Your task to perform on an android device: When is my next appointment? Image 0: 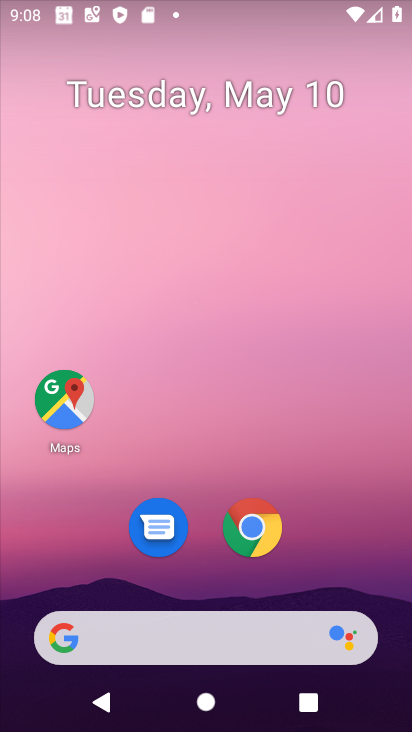
Step 0: drag from (333, 558) to (284, 211)
Your task to perform on an android device: When is my next appointment? Image 1: 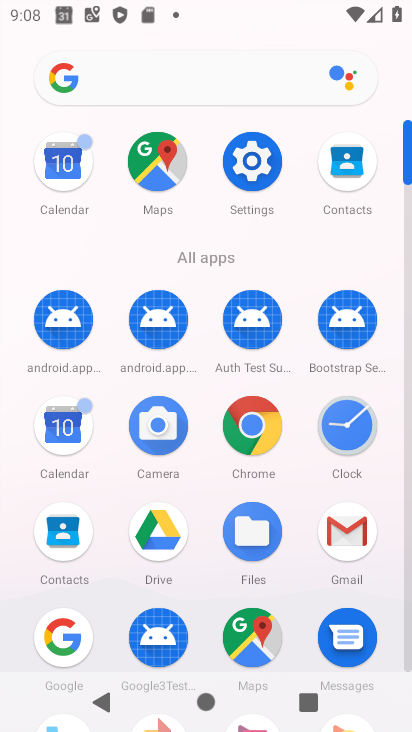
Step 1: click (68, 475)
Your task to perform on an android device: When is my next appointment? Image 2: 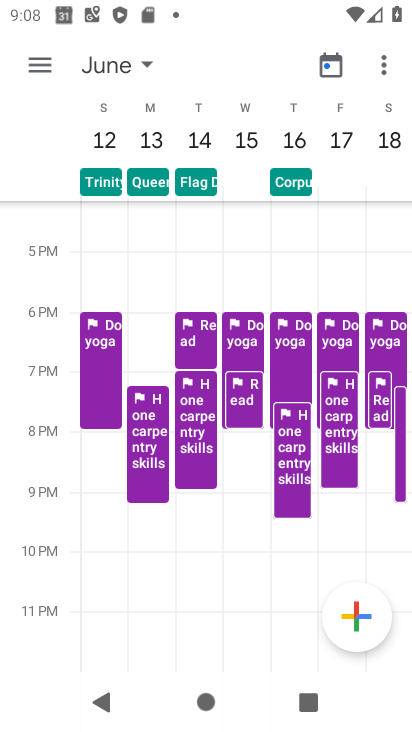
Step 2: click (41, 72)
Your task to perform on an android device: When is my next appointment? Image 3: 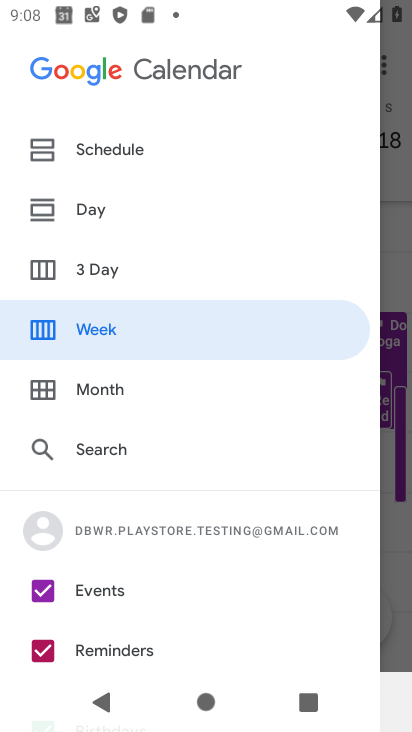
Step 3: click (102, 215)
Your task to perform on an android device: When is my next appointment? Image 4: 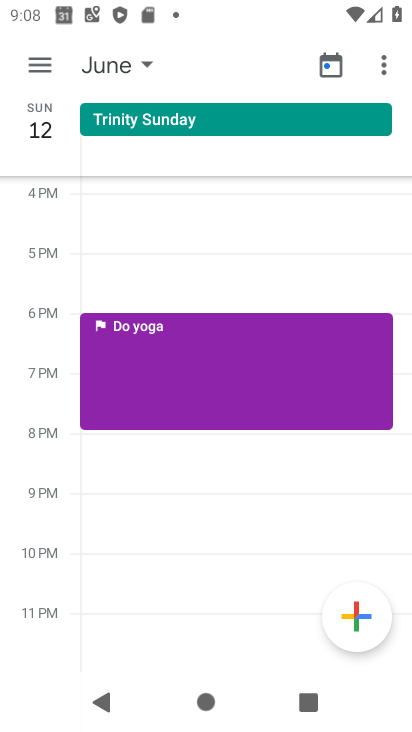
Step 4: click (49, 71)
Your task to perform on an android device: When is my next appointment? Image 5: 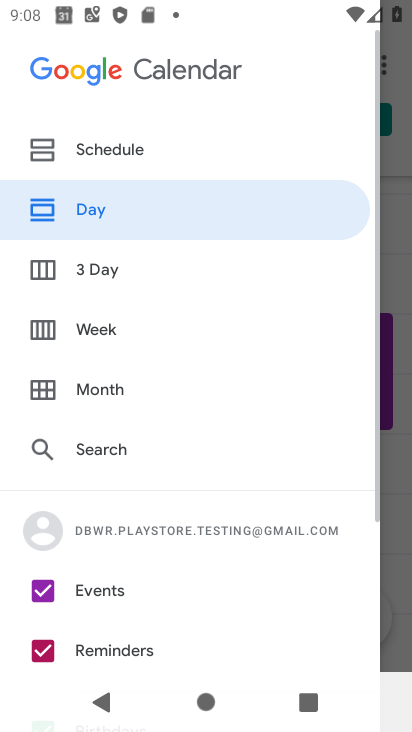
Step 5: click (118, 165)
Your task to perform on an android device: When is my next appointment? Image 6: 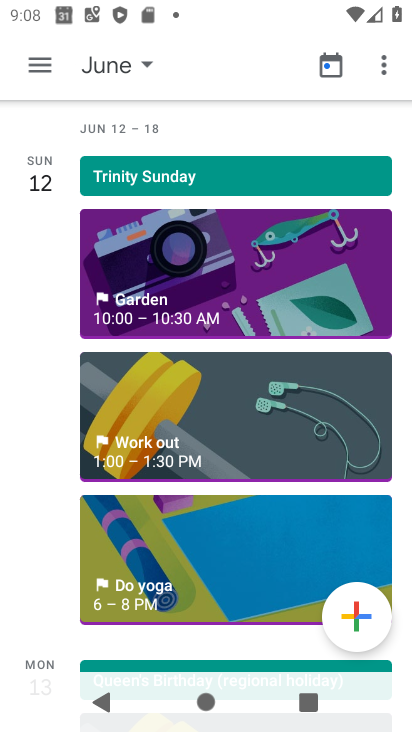
Step 6: drag from (225, 546) to (266, 269)
Your task to perform on an android device: When is my next appointment? Image 7: 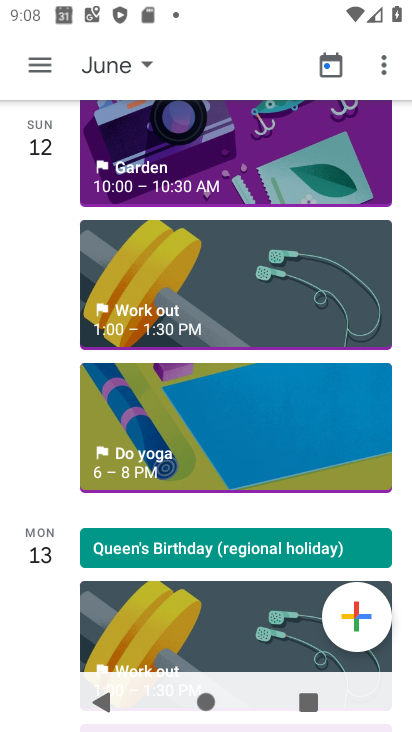
Step 7: drag from (228, 541) to (226, 248)
Your task to perform on an android device: When is my next appointment? Image 8: 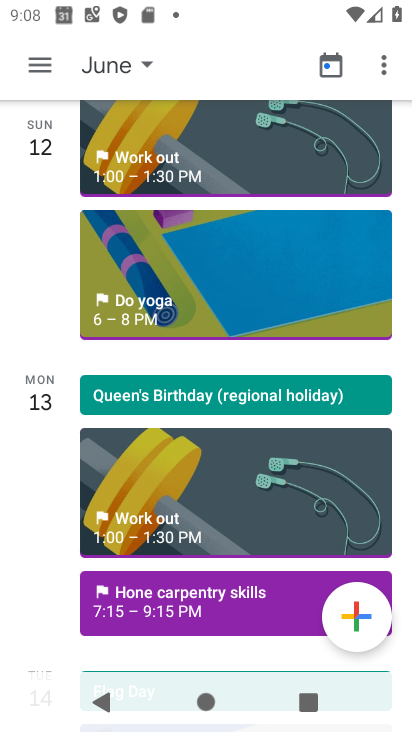
Step 8: drag from (161, 523) to (204, 305)
Your task to perform on an android device: When is my next appointment? Image 9: 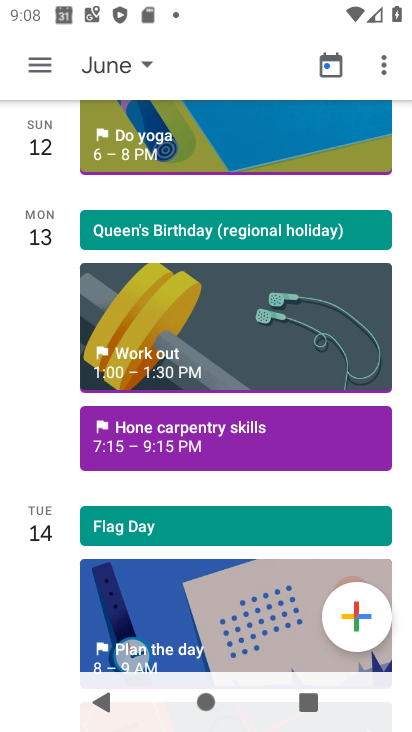
Step 9: drag from (189, 530) to (226, 289)
Your task to perform on an android device: When is my next appointment? Image 10: 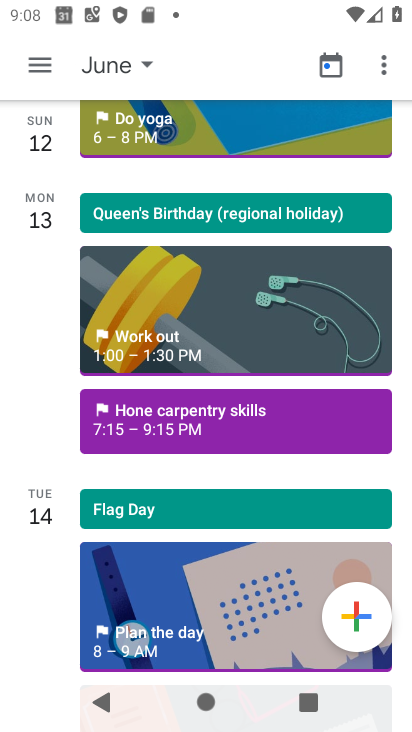
Step 10: drag from (208, 588) to (211, 273)
Your task to perform on an android device: When is my next appointment? Image 11: 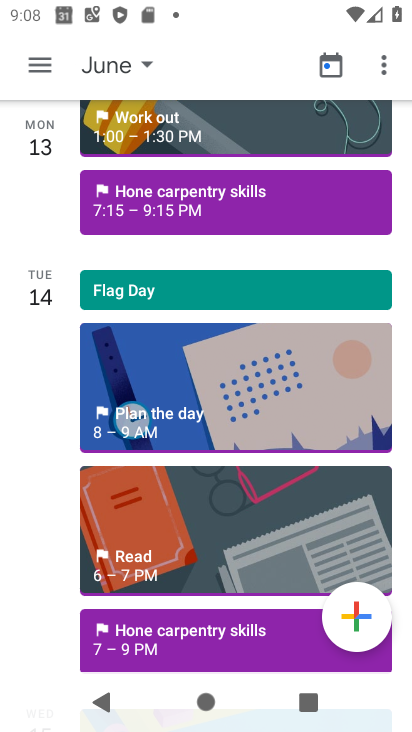
Step 11: drag from (174, 564) to (207, 260)
Your task to perform on an android device: When is my next appointment? Image 12: 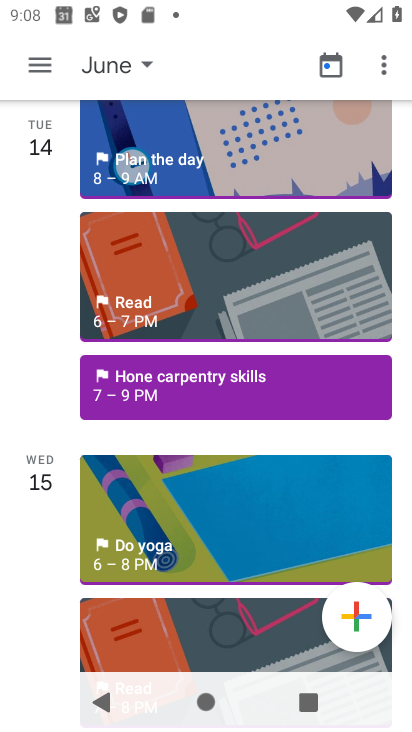
Step 12: drag from (196, 551) to (210, 274)
Your task to perform on an android device: When is my next appointment? Image 13: 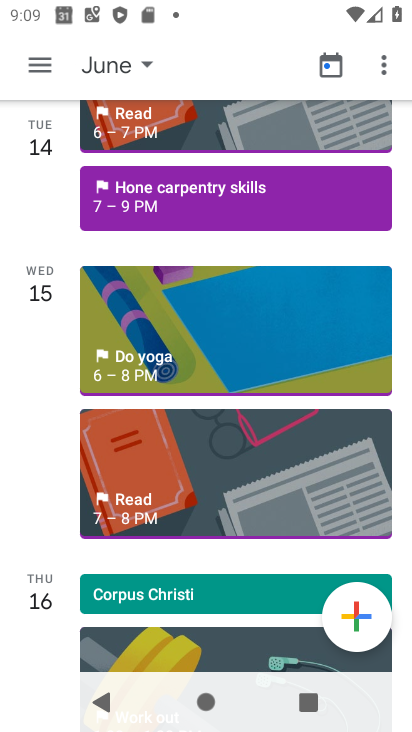
Step 13: drag from (203, 541) to (203, 287)
Your task to perform on an android device: When is my next appointment? Image 14: 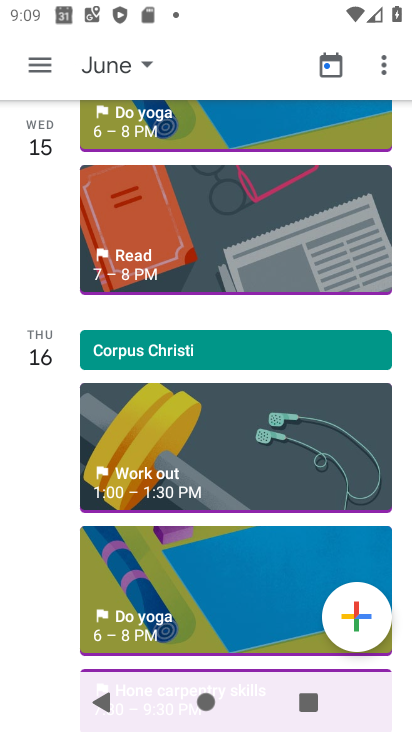
Step 14: drag from (178, 571) to (193, 315)
Your task to perform on an android device: When is my next appointment? Image 15: 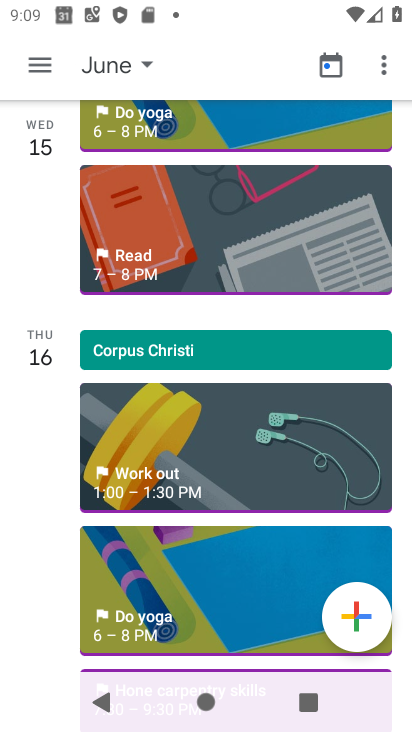
Step 15: drag from (141, 563) to (161, 256)
Your task to perform on an android device: When is my next appointment? Image 16: 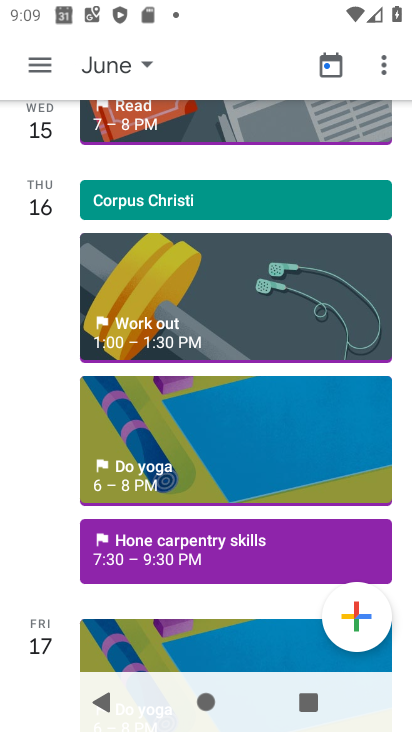
Step 16: drag from (83, 538) to (116, 310)
Your task to perform on an android device: When is my next appointment? Image 17: 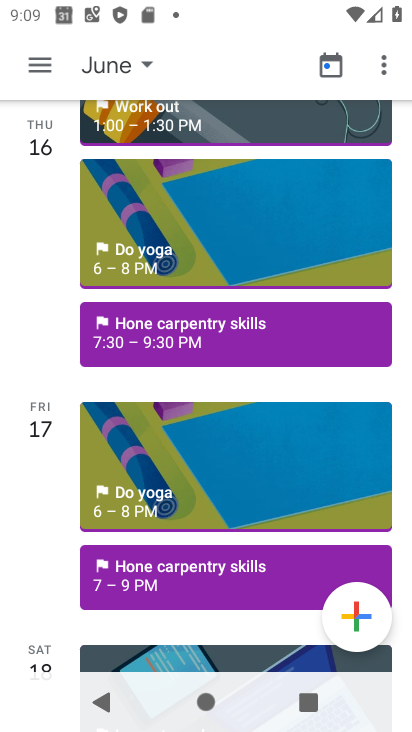
Step 17: drag from (150, 564) to (181, 292)
Your task to perform on an android device: When is my next appointment? Image 18: 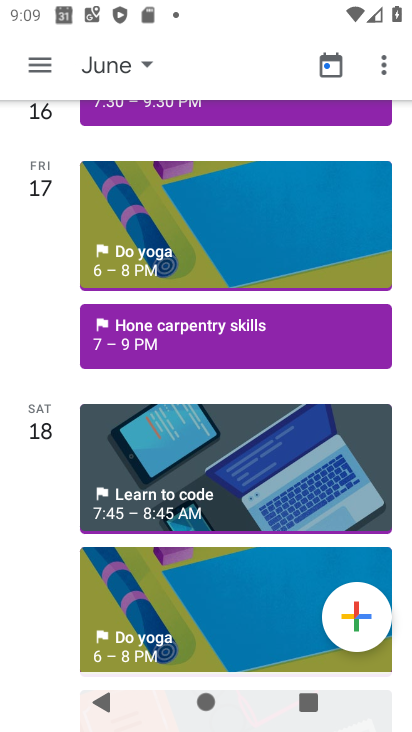
Step 18: drag from (163, 550) to (163, 202)
Your task to perform on an android device: When is my next appointment? Image 19: 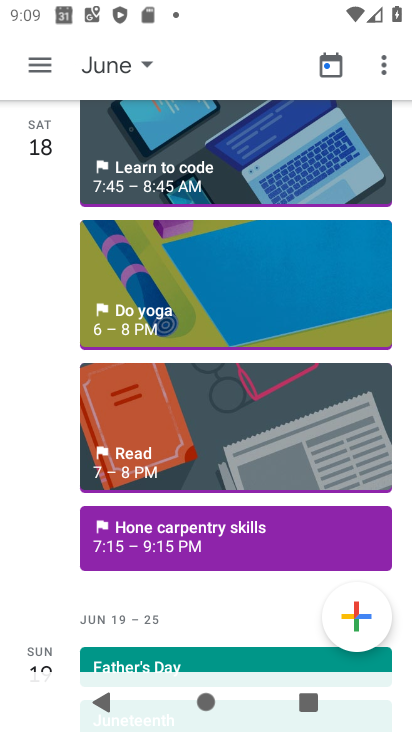
Step 19: drag from (97, 493) to (157, 200)
Your task to perform on an android device: When is my next appointment? Image 20: 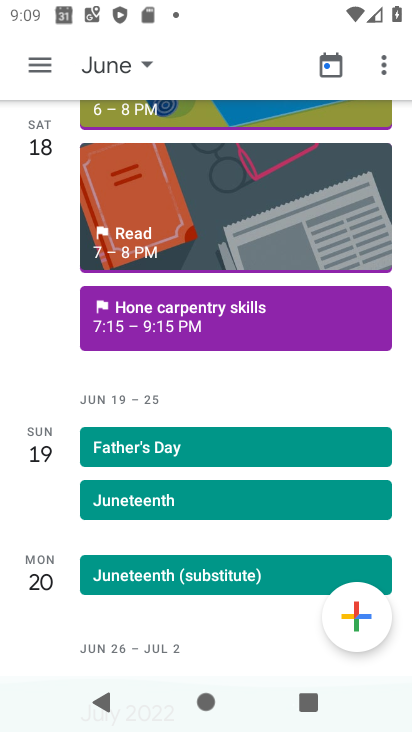
Step 20: drag from (142, 482) to (211, 202)
Your task to perform on an android device: When is my next appointment? Image 21: 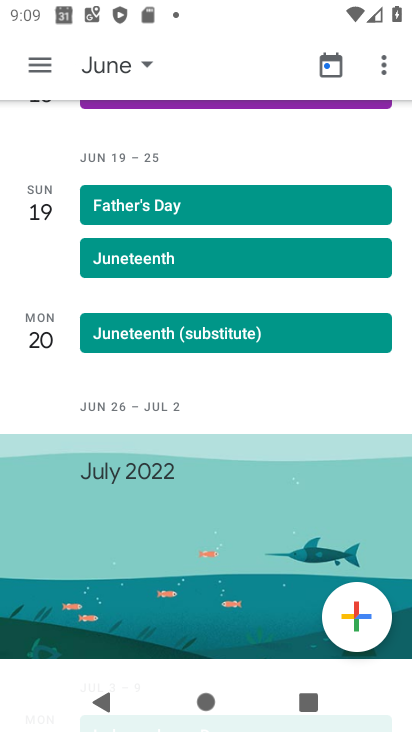
Step 21: drag from (190, 424) to (231, 152)
Your task to perform on an android device: When is my next appointment? Image 22: 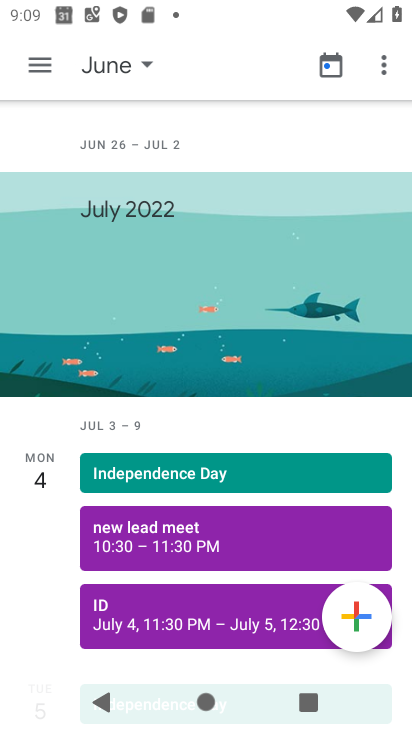
Step 22: drag from (164, 228) to (161, 491)
Your task to perform on an android device: When is my next appointment? Image 23: 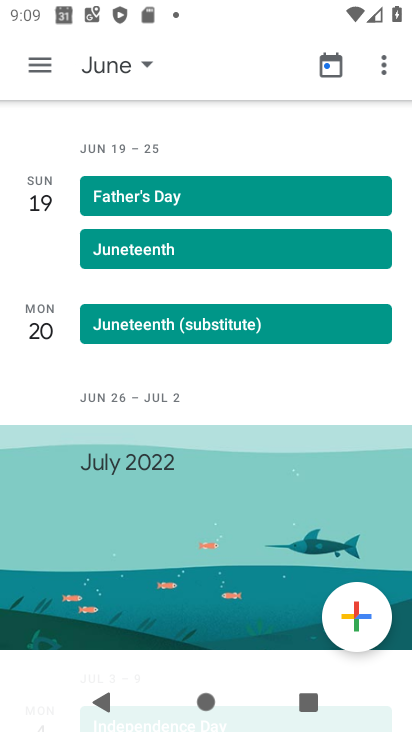
Step 23: drag from (189, 251) to (184, 446)
Your task to perform on an android device: When is my next appointment? Image 24: 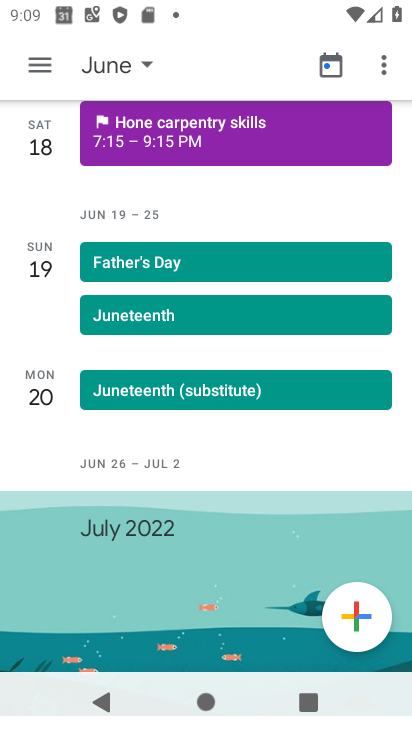
Step 24: click (115, 59)
Your task to perform on an android device: When is my next appointment? Image 25: 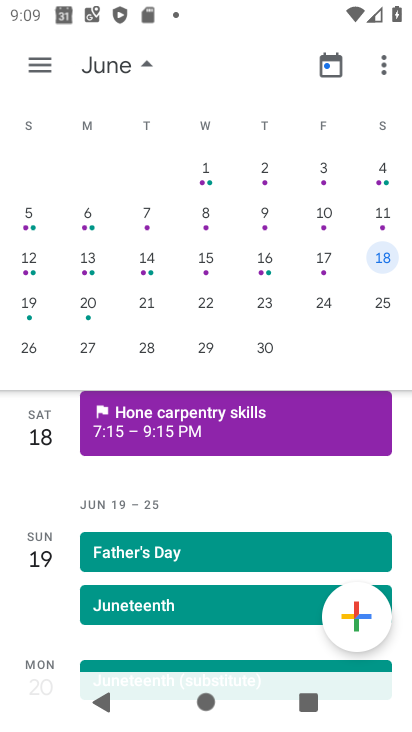
Step 25: task complete